Your task to perform on an android device: turn on showing notifications on the lock screen Image 0: 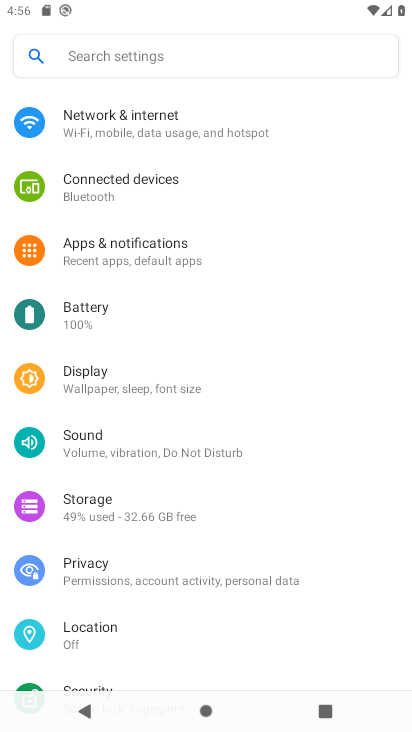
Step 0: drag from (374, 625) to (277, 103)
Your task to perform on an android device: turn on showing notifications on the lock screen Image 1: 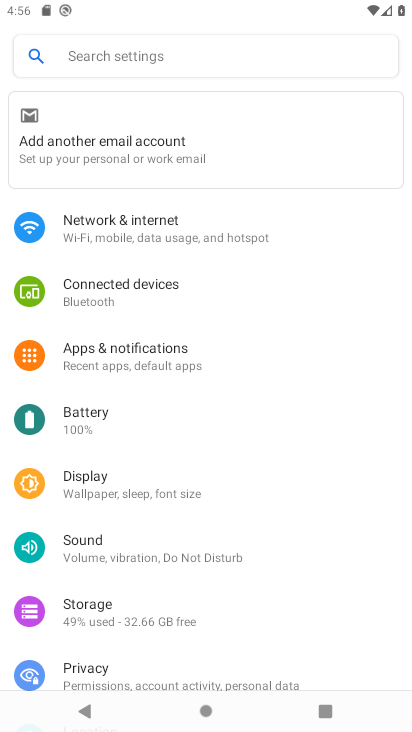
Step 1: click (137, 361)
Your task to perform on an android device: turn on showing notifications on the lock screen Image 2: 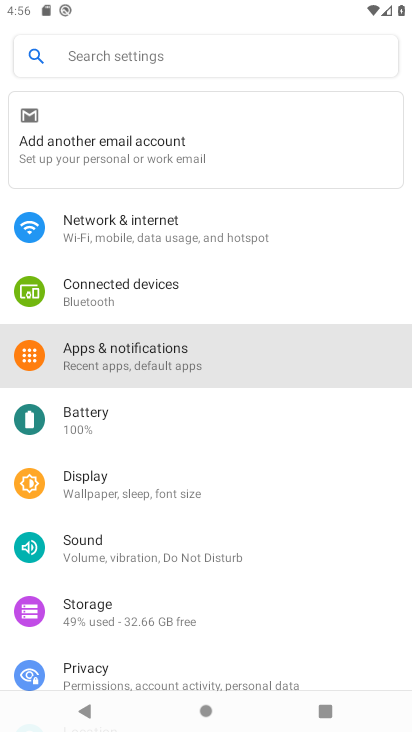
Step 2: click (138, 360)
Your task to perform on an android device: turn on showing notifications on the lock screen Image 3: 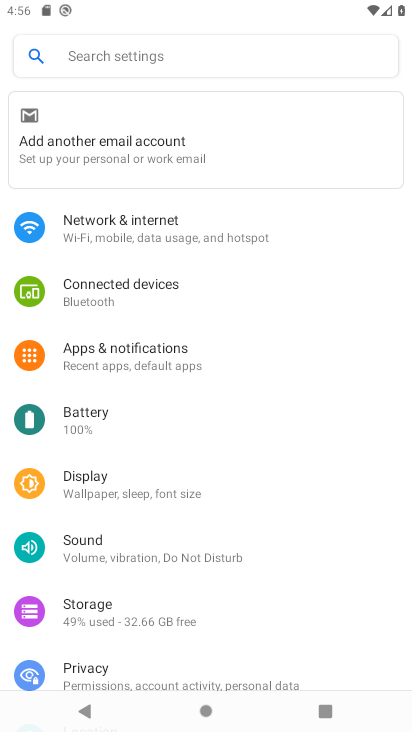
Step 3: click (141, 364)
Your task to perform on an android device: turn on showing notifications on the lock screen Image 4: 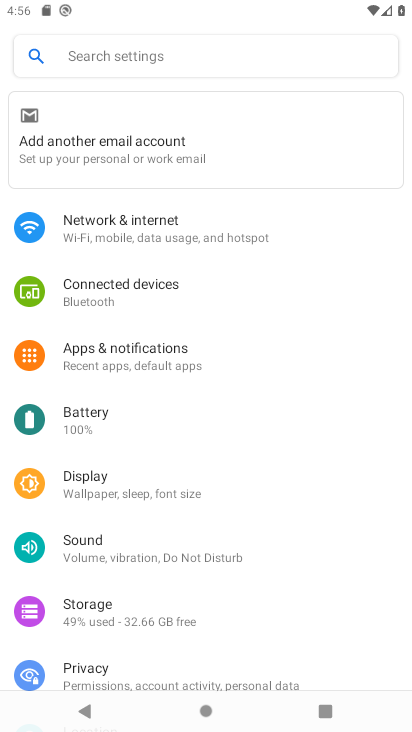
Step 4: click (142, 364)
Your task to perform on an android device: turn on showing notifications on the lock screen Image 5: 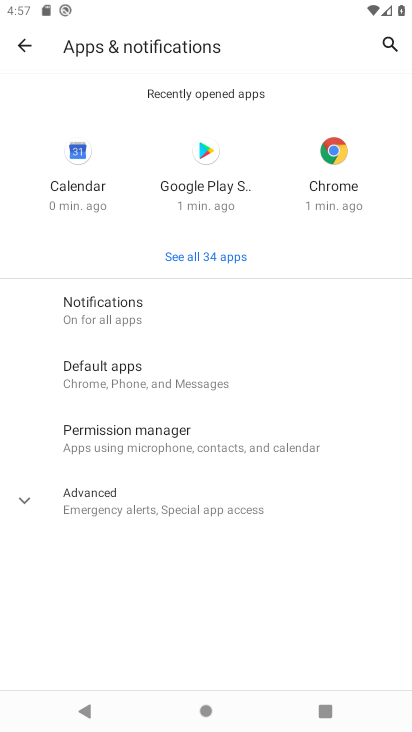
Step 5: click (92, 308)
Your task to perform on an android device: turn on showing notifications on the lock screen Image 6: 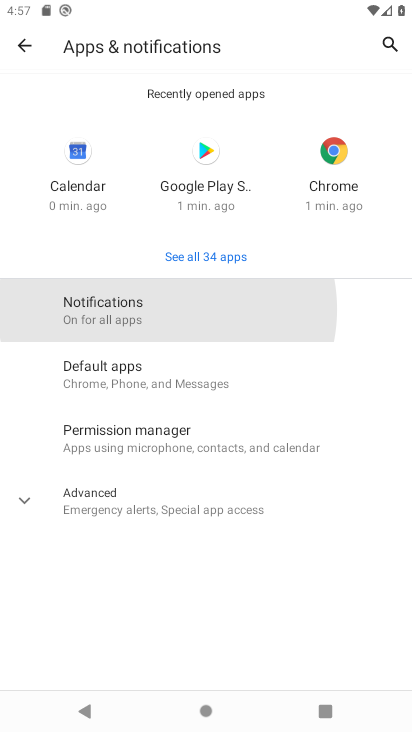
Step 6: click (92, 308)
Your task to perform on an android device: turn on showing notifications on the lock screen Image 7: 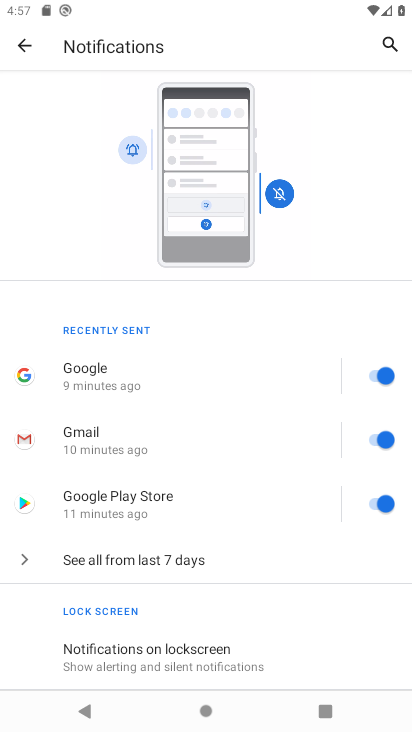
Step 7: click (189, 665)
Your task to perform on an android device: turn on showing notifications on the lock screen Image 8: 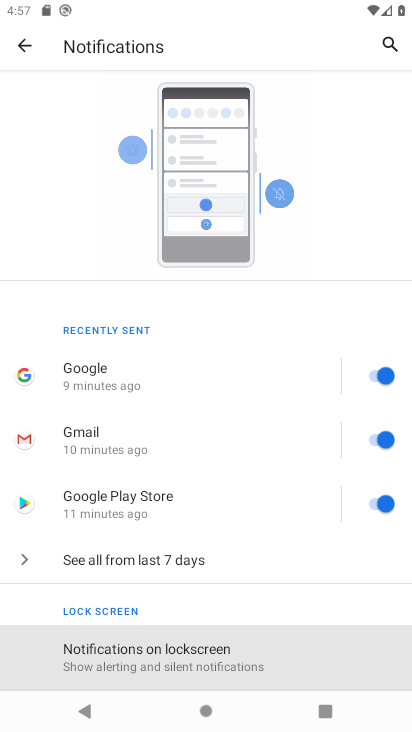
Step 8: click (188, 661)
Your task to perform on an android device: turn on showing notifications on the lock screen Image 9: 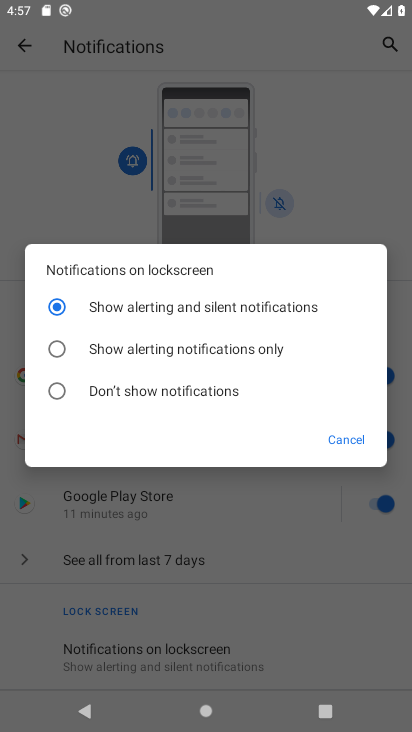
Step 9: task complete